Your task to perform on an android device: find photos in the google photos app Image 0: 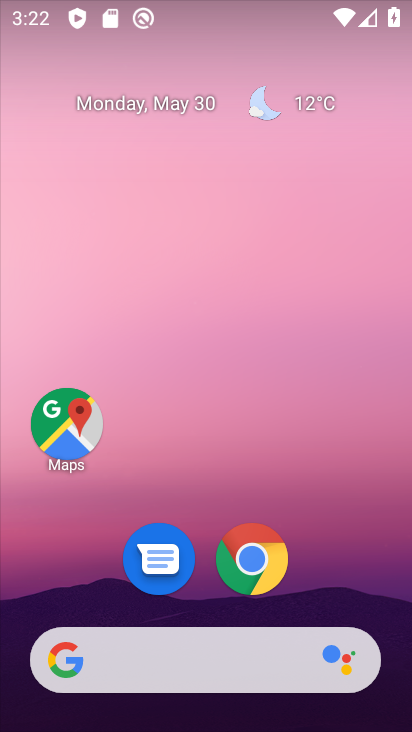
Step 0: drag from (193, 727) to (188, 174)
Your task to perform on an android device: find photos in the google photos app Image 1: 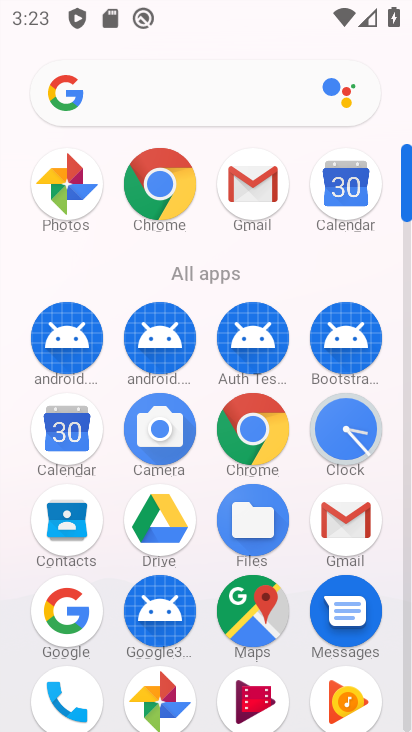
Step 1: click (73, 188)
Your task to perform on an android device: find photos in the google photos app Image 2: 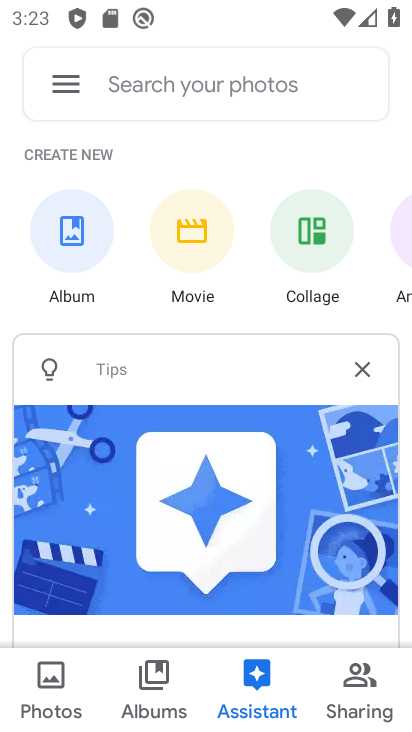
Step 2: click (54, 680)
Your task to perform on an android device: find photos in the google photos app Image 3: 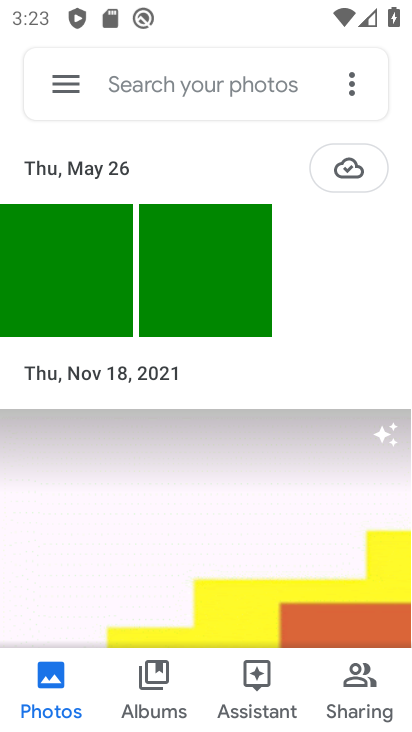
Step 3: task complete